Your task to perform on an android device: Do I have any events tomorrow? Image 0: 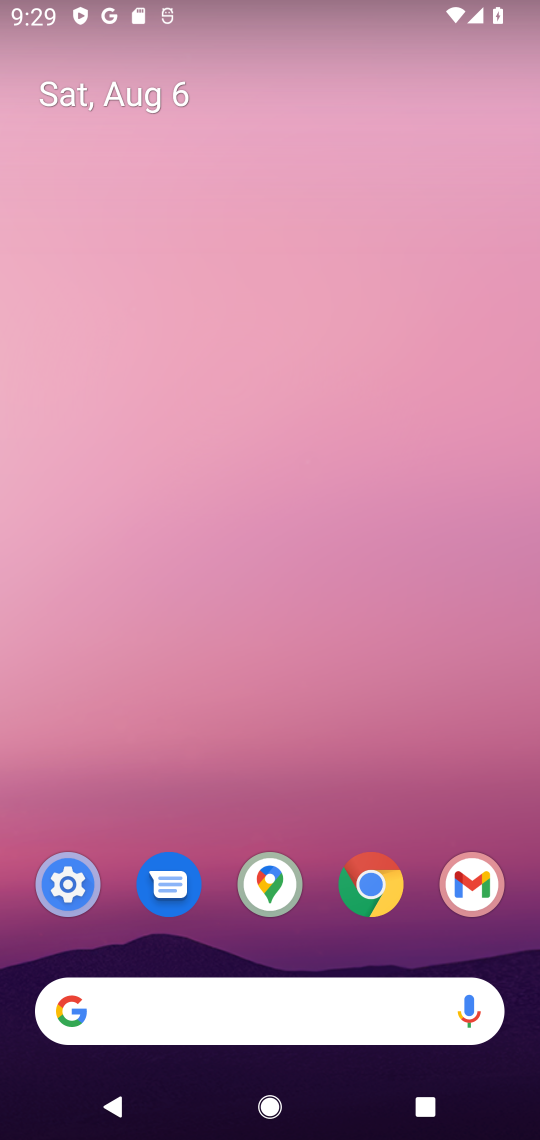
Step 0: drag from (380, 684) to (363, 151)
Your task to perform on an android device: Do I have any events tomorrow? Image 1: 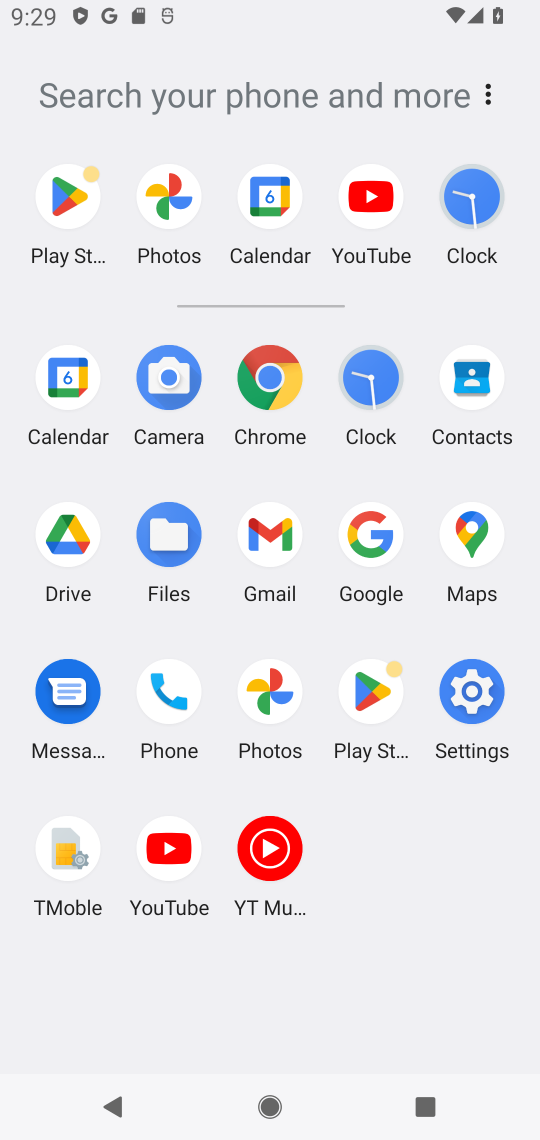
Step 1: click (66, 379)
Your task to perform on an android device: Do I have any events tomorrow? Image 2: 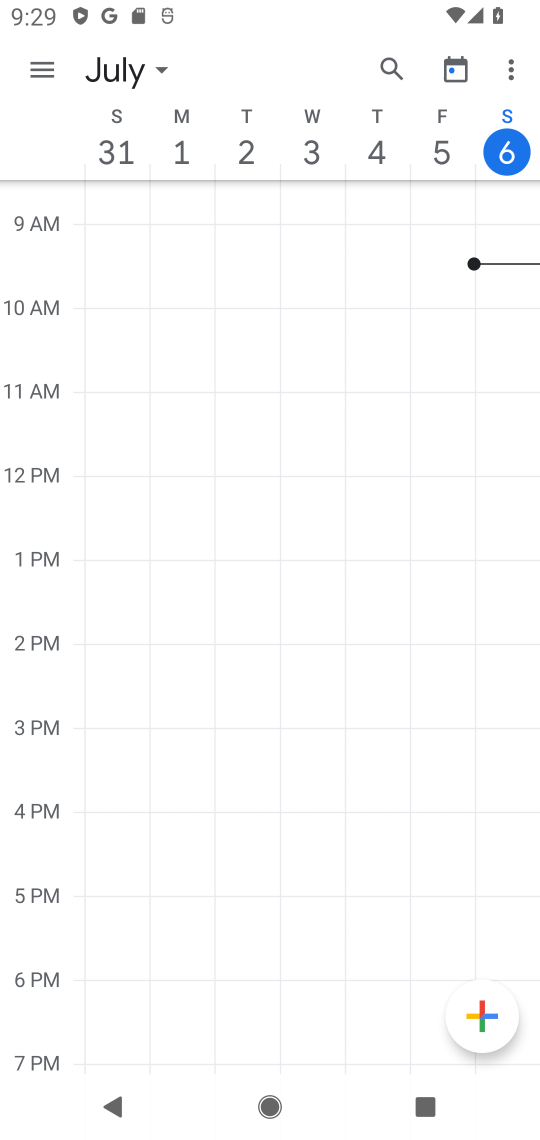
Step 2: click (54, 68)
Your task to perform on an android device: Do I have any events tomorrow? Image 3: 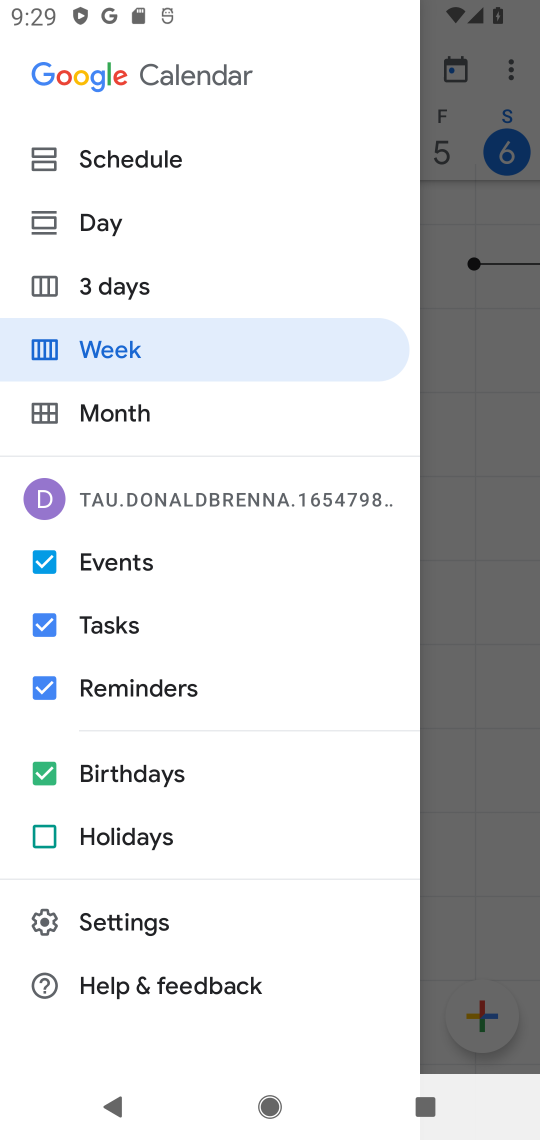
Step 3: click (101, 222)
Your task to perform on an android device: Do I have any events tomorrow? Image 4: 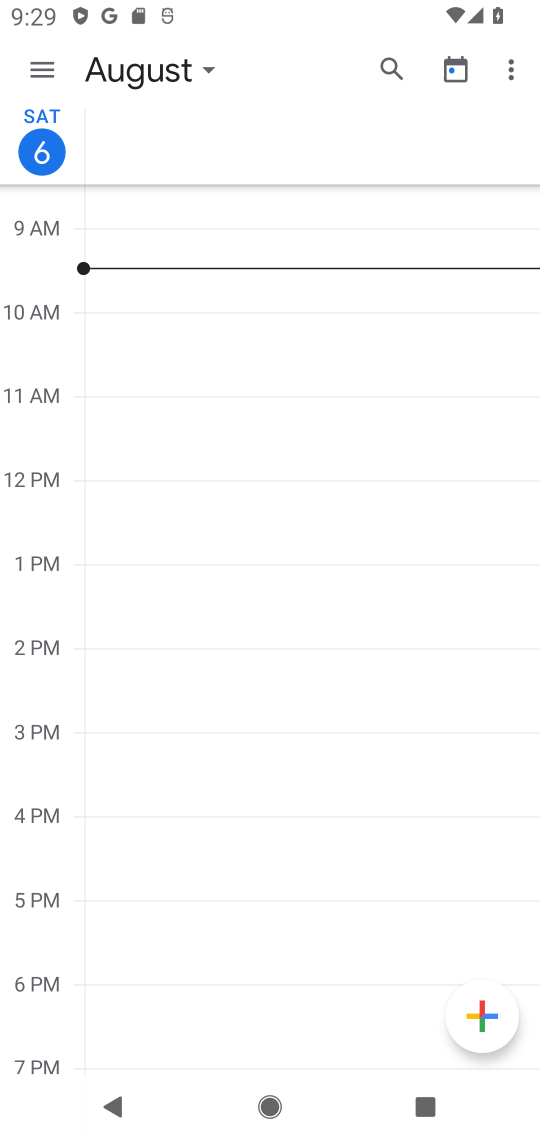
Step 4: click (207, 65)
Your task to perform on an android device: Do I have any events tomorrow? Image 5: 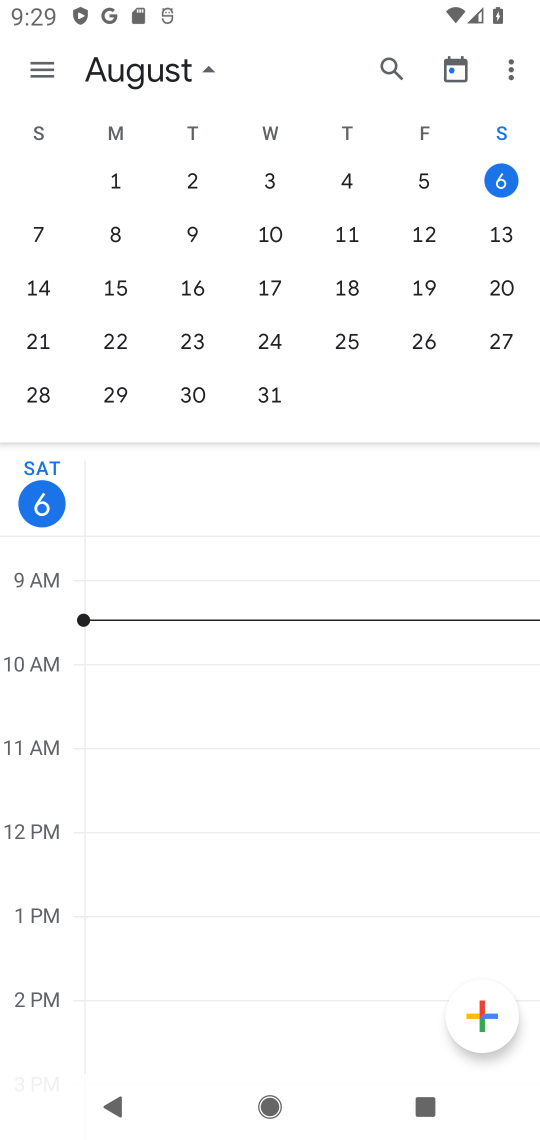
Step 5: click (31, 228)
Your task to perform on an android device: Do I have any events tomorrow? Image 6: 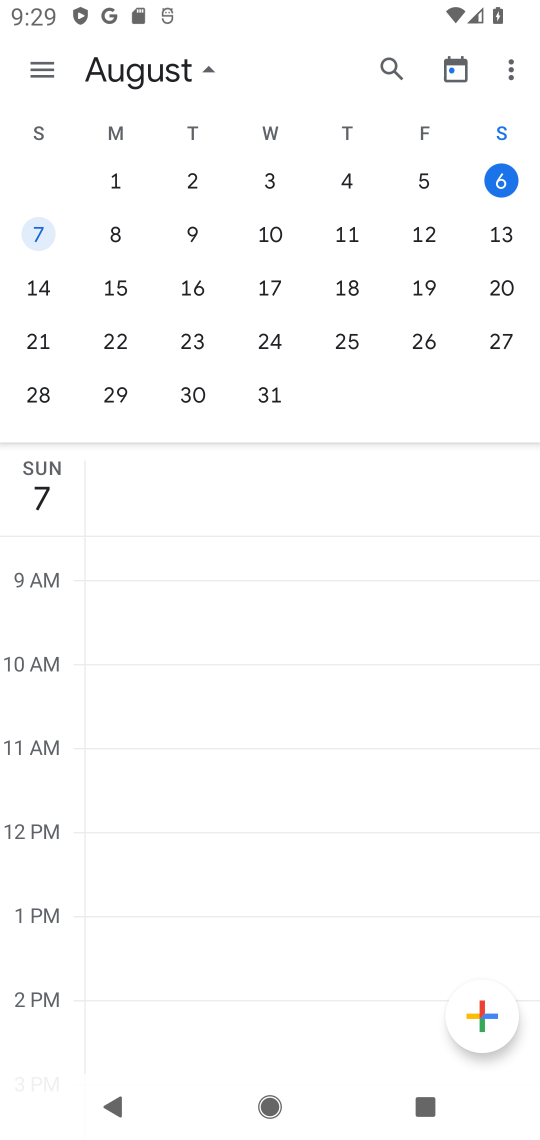
Step 6: task complete